Your task to perform on an android device: toggle translation in the chrome app Image 0: 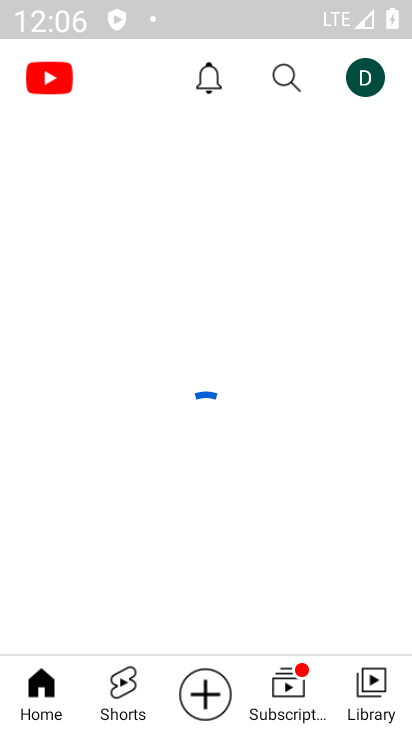
Step 0: press home button
Your task to perform on an android device: toggle translation in the chrome app Image 1: 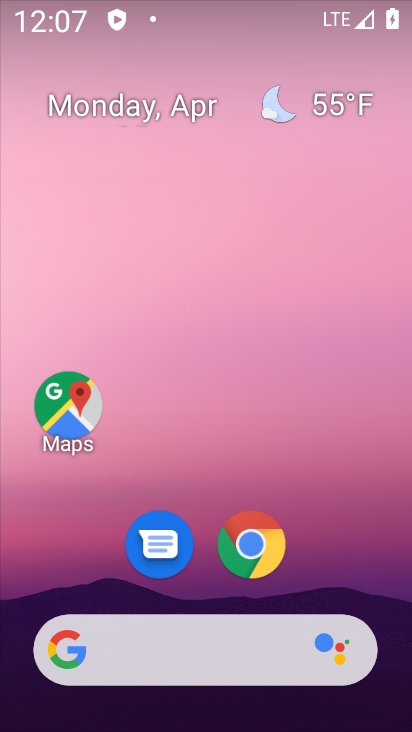
Step 1: click (251, 555)
Your task to perform on an android device: toggle translation in the chrome app Image 2: 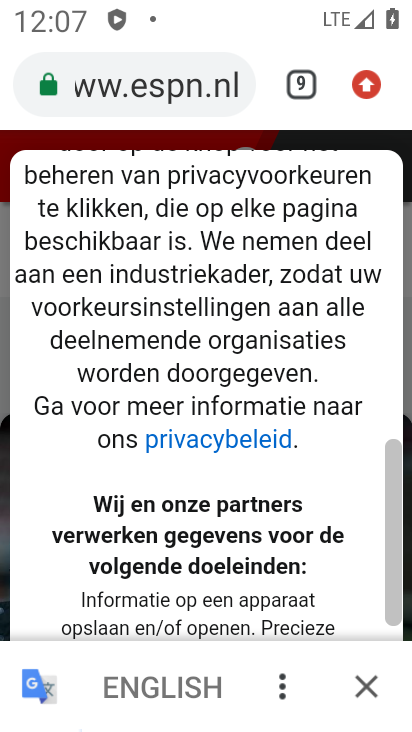
Step 2: drag from (368, 88) to (114, 594)
Your task to perform on an android device: toggle translation in the chrome app Image 3: 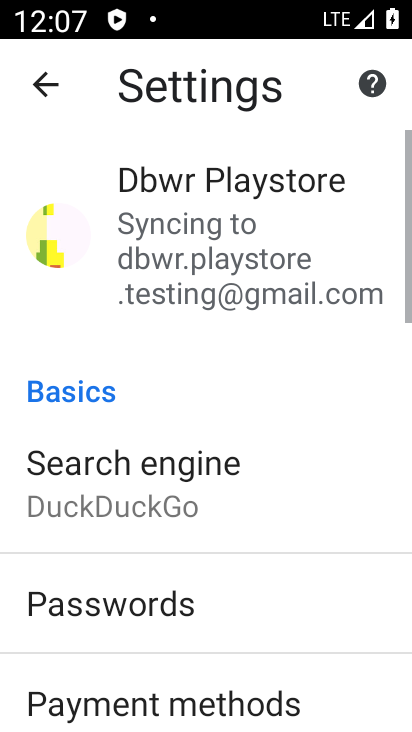
Step 3: drag from (243, 653) to (201, 249)
Your task to perform on an android device: toggle translation in the chrome app Image 4: 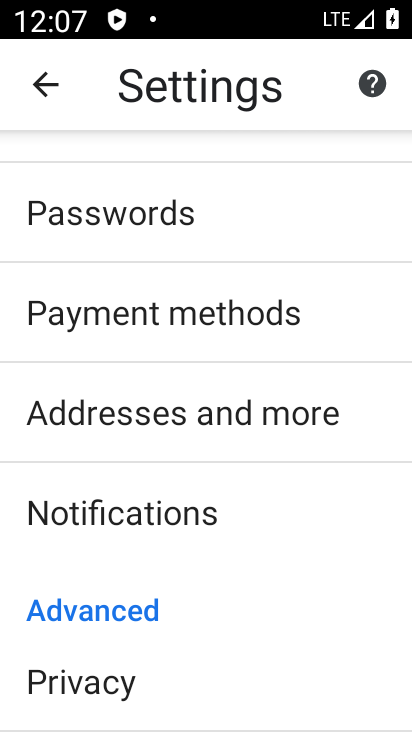
Step 4: drag from (168, 693) to (168, 249)
Your task to perform on an android device: toggle translation in the chrome app Image 5: 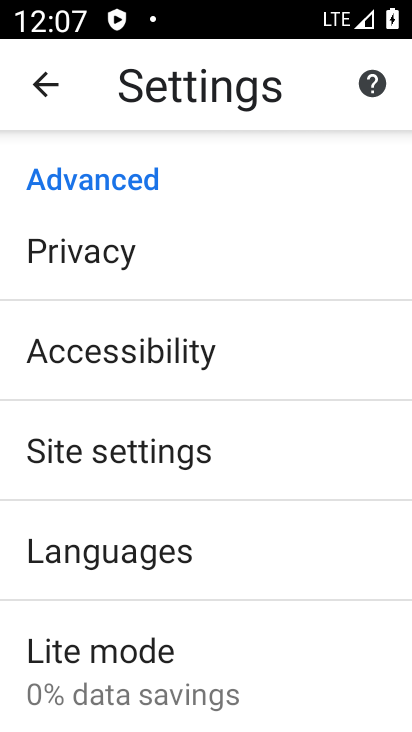
Step 5: click (88, 557)
Your task to perform on an android device: toggle translation in the chrome app Image 6: 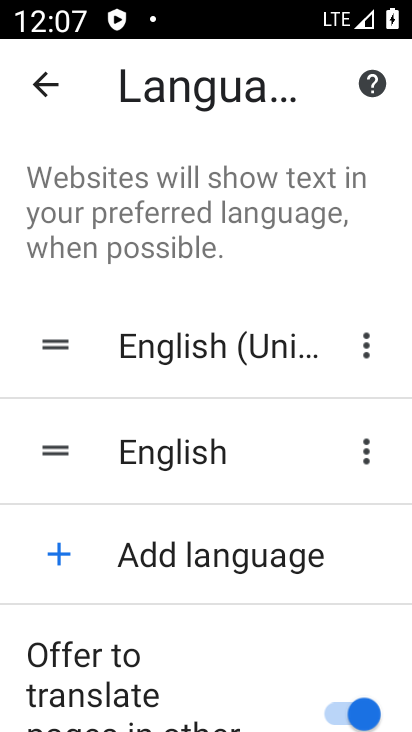
Step 6: drag from (156, 600) to (155, 418)
Your task to perform on an android device: toggle translation in the chrome app Image 7: 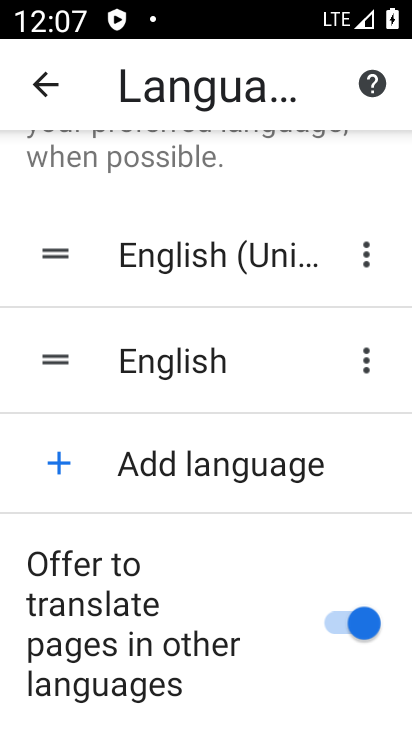
Step 7: click (362, 632)
Your task to perform on an android device: toggle translation in the chrome app Image 8: 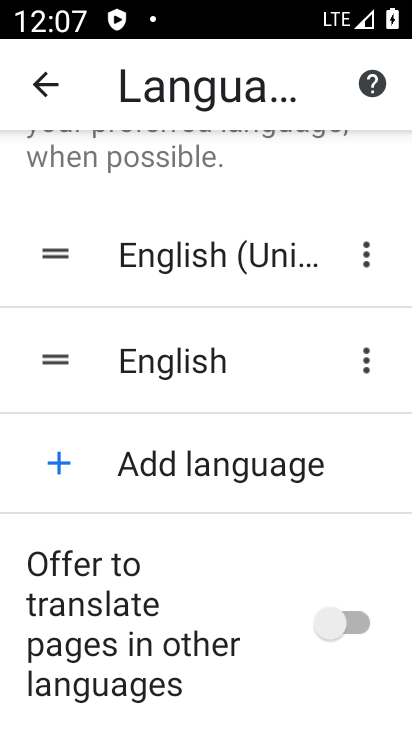
Step 8: task complete